Your task to perform on an android device: What's the weather today? Image 0: 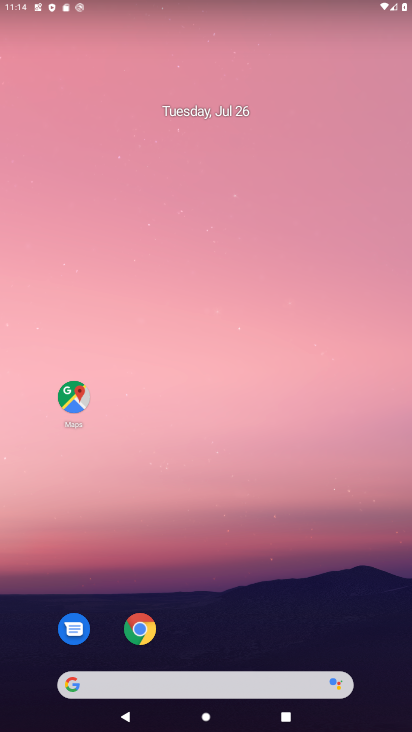
Step 0: click (255, 677)
Your task to perform on an android device: What's the weather today? Image 1: 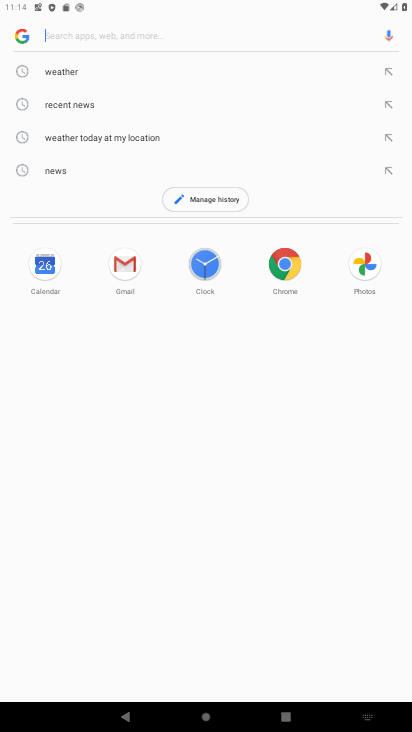
Step 1: type "weather"
Your task to perform on an android device: What's the weather today? Image 2: 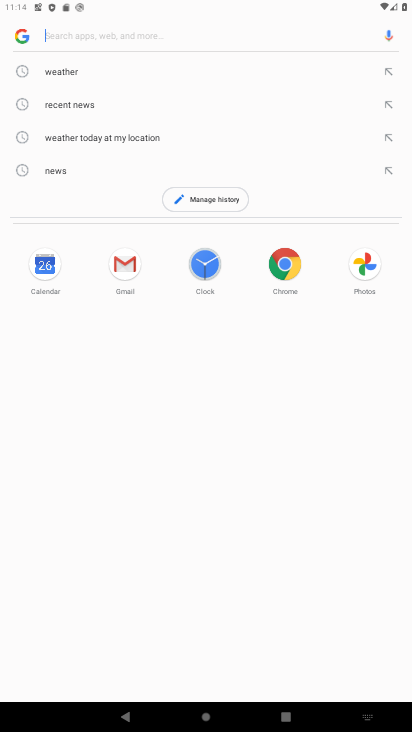
Step 2: click (72, 62)
Your task to perform on an android device: What's the weather today? Image 3: 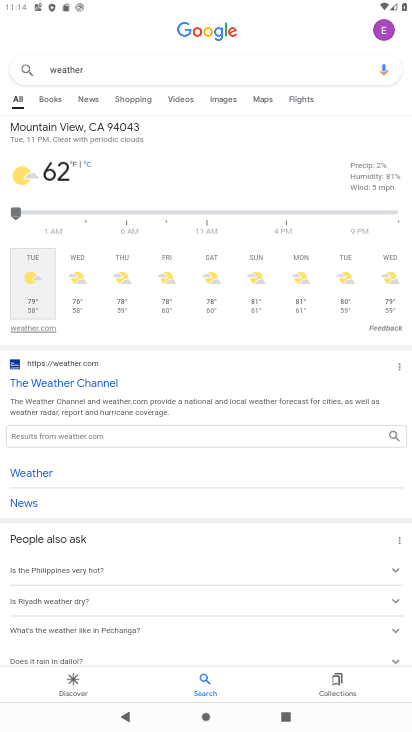
Step 3: task complete